Your task to perform on an android device: Open internet settings Image 0: 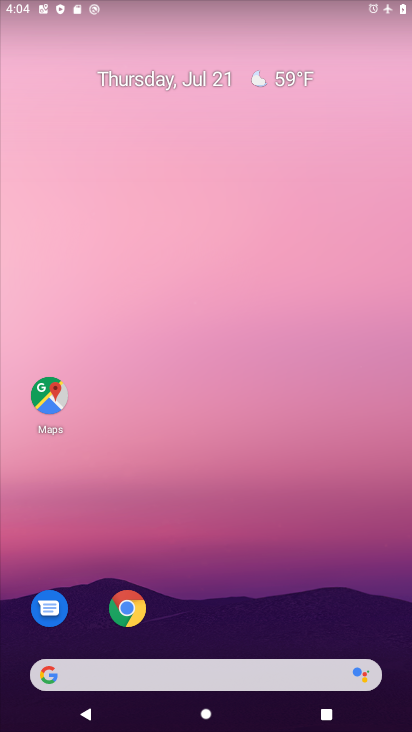
Step 0: drag from (224, 665) to (290, 3)
Your task to perform on an android device: Open internet settings Image 1: 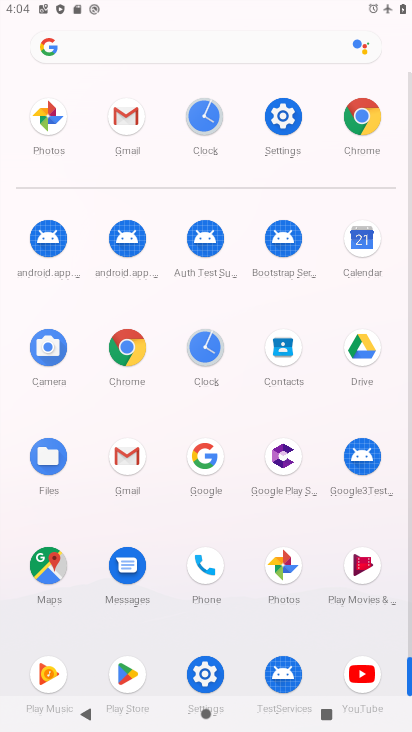
Step 1: click (288, 116)
Your task to perform on an android device: Open internet settings Image 2: 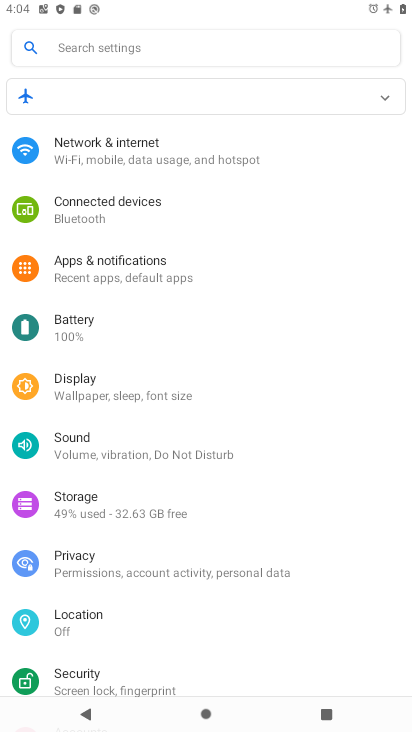
Step 2: click (164, 154)
Your task to perform on an android device: Open internet settings Image 3: 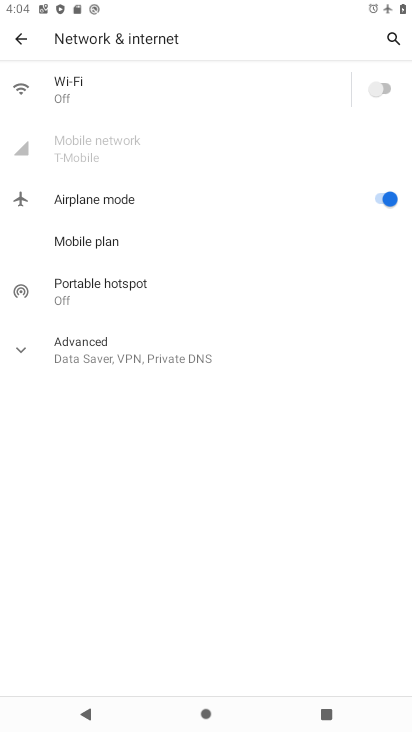
Step 3: task complete